Your task to perform on an android device: Open Amazon Image 0: 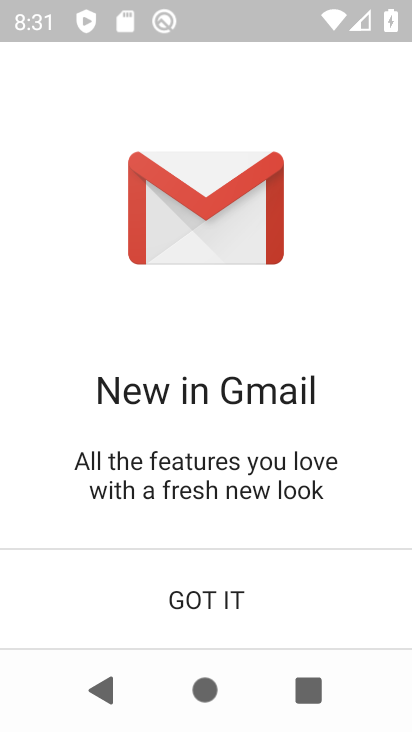
Step 0: press back button
Your task to perform on an android device: Open Amazon Image 1: 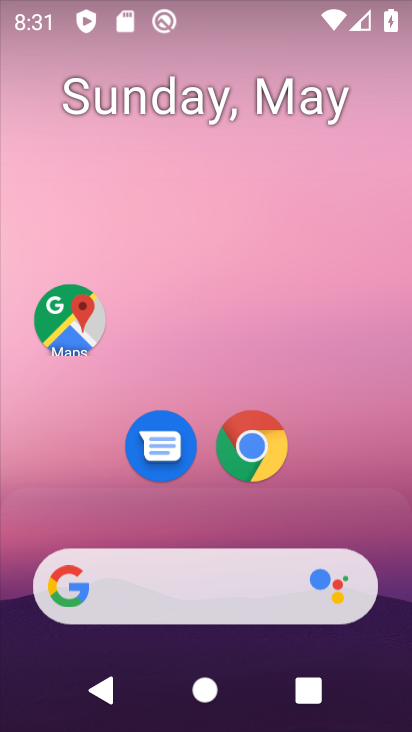
Step 1: drag from (48, 558) to (186, 104)
Your task to perform on an android device: Open Amazon Image 2: 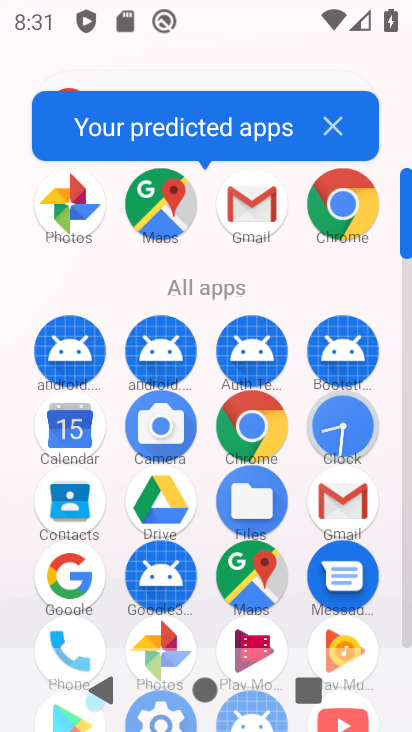
Step 2: drag from (186, 642) to (295, 331)
Your task to perform on an android device: Open Amazon Image 3: 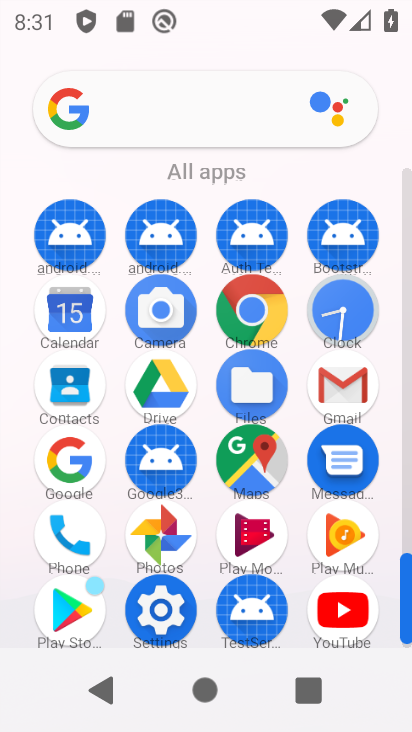
Step 3: click (256, 306)
Your task to perform on an android device: Open Amazon Image 4: 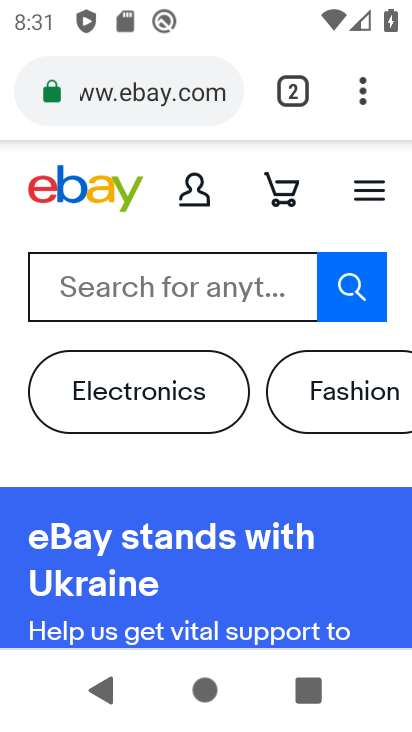
Step 4: drag from (368, 78) to (335, 163)
Your task to perform on an android device: Open Amazon Image 5: 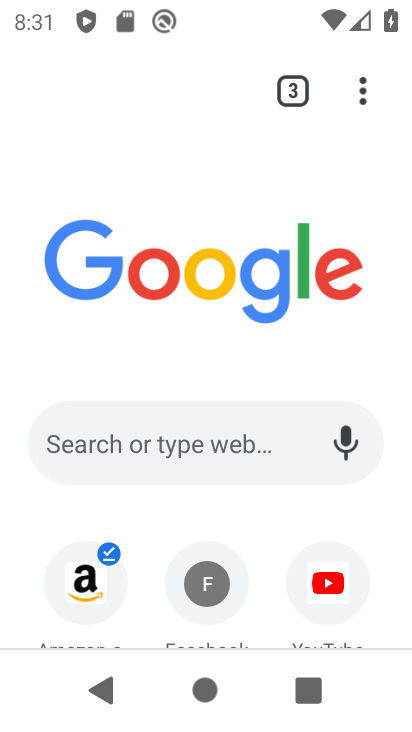
Step 5: click (99, 594)
Your task to perform on an android device: Open Amazon Image 6: 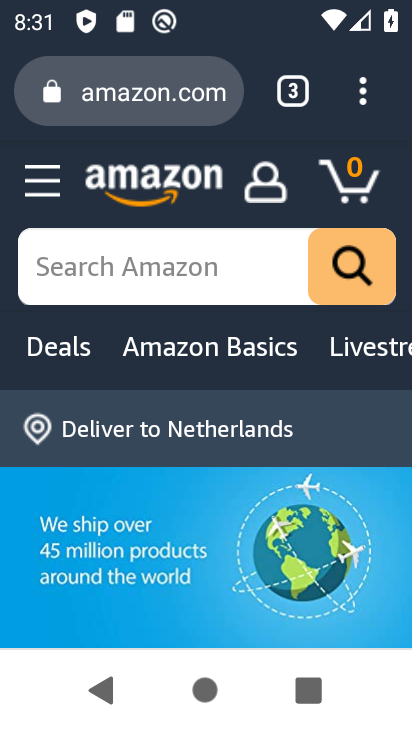
Step 6: task complete